Your task to perform on an android device: Open Youtube and go to "Your channel" Image 0: 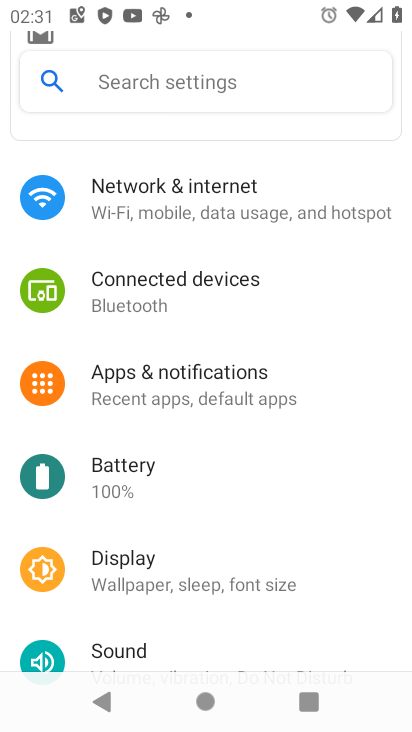
Step 0: drag from (213, 629) to (327, 349)
Your task to perform on an android device: Open Youtube and go to "Your channel" Image 1: 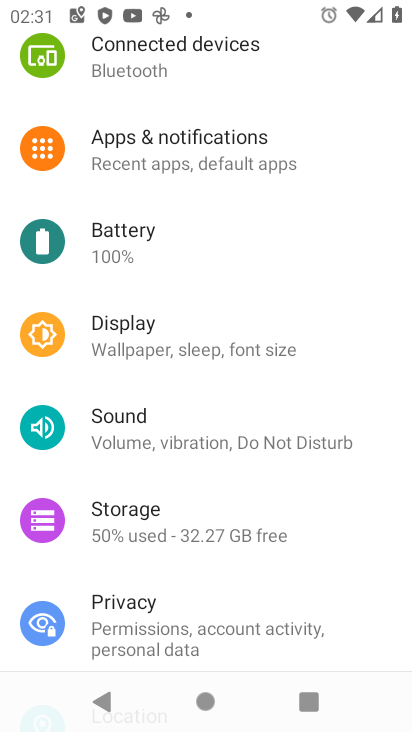
Step 1: press home button
Your task to perform on an android device: Open Youtube and go to "Your channel" Image 2: 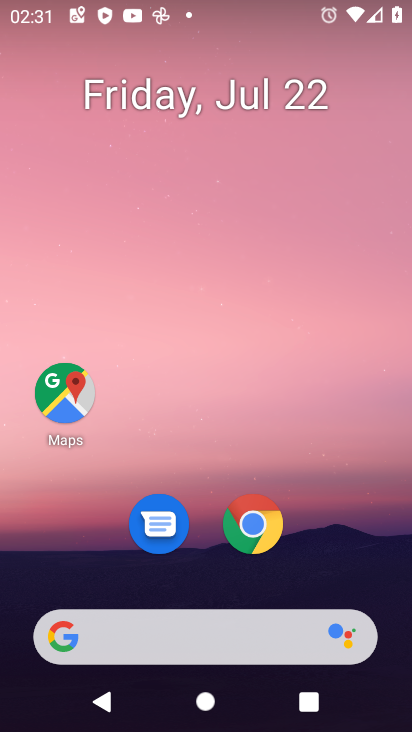
Step 2: drag from (218, 586) to (311, 194)
Your task to perform on an android device: Open Youtube and go to "Your channel" Image 3: 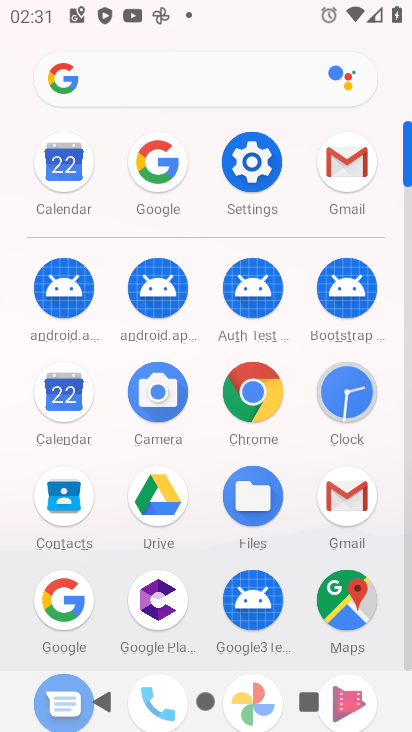
Step 3: drag from (204, 587) to (320, 161)
Your task to perform on an android device: Open Youtube and go to "Your channel" Image 4: 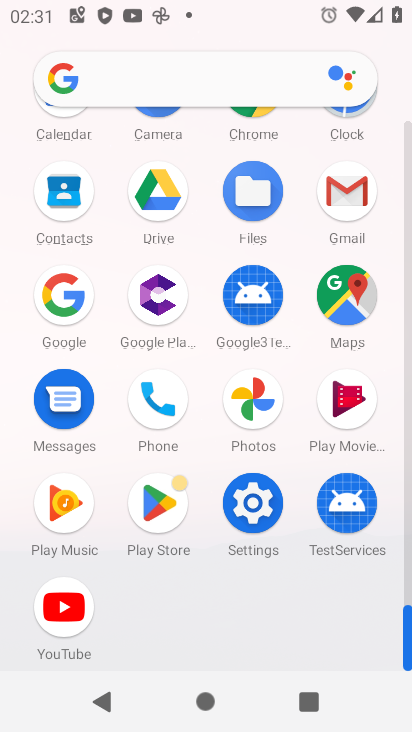
Step 4: click (60, 610)
Your task to perform on an android device: Open Youtube and go to "Your channel" Image 5: 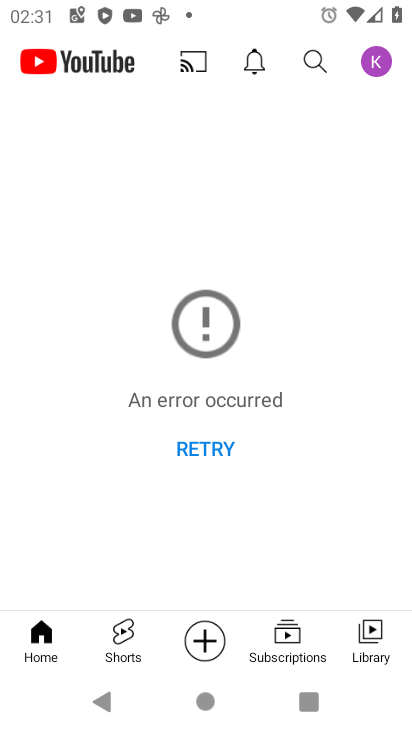
Step 5: click (212, 446)
Your task to perform on an android device: Open Youtube and go to "Your channel" Image 6: 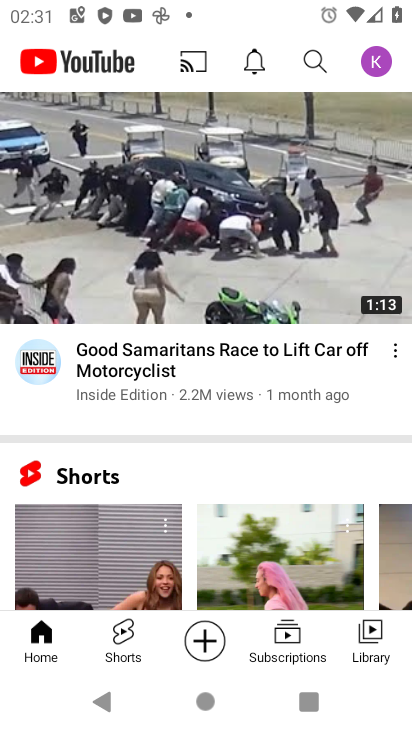
Step 6: click (378, 63)
Your task to perform on an android device: Open Youtube and go to "Your channel" Image 7: 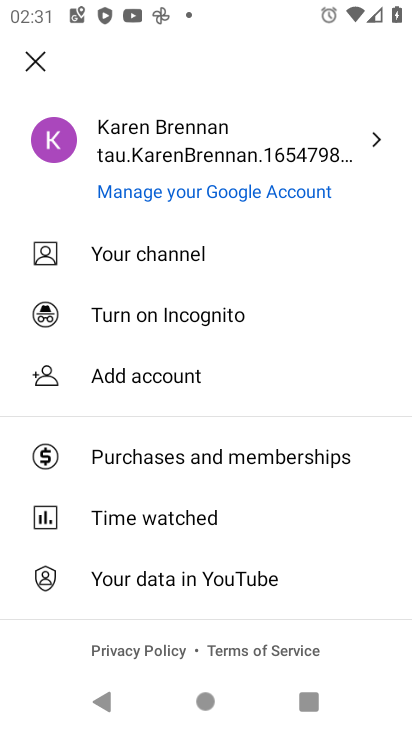
Step 7: click (176, 271)
Your task to perform on an android device: Open Youtube and go to "Your channel" Image 8: 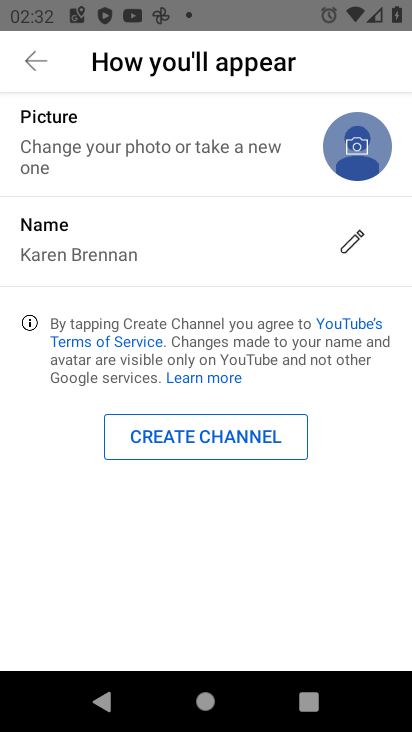
Step 8: task complete